Your task to perform on an android device: Go to eBay Image 0: 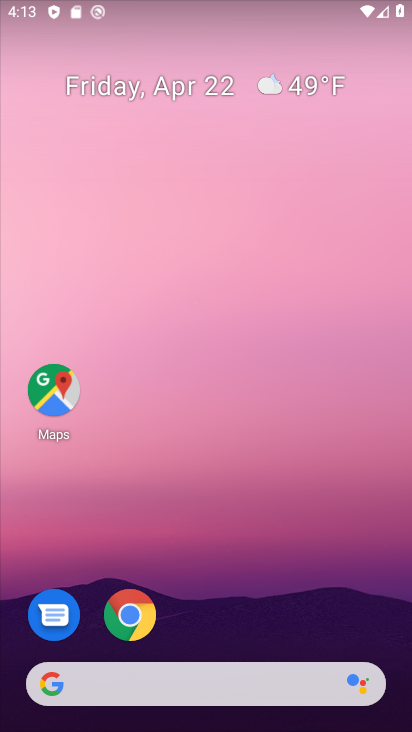
Step 0: click (221, 685)
Your task to perform on an android device: Go to eBay Image 1: 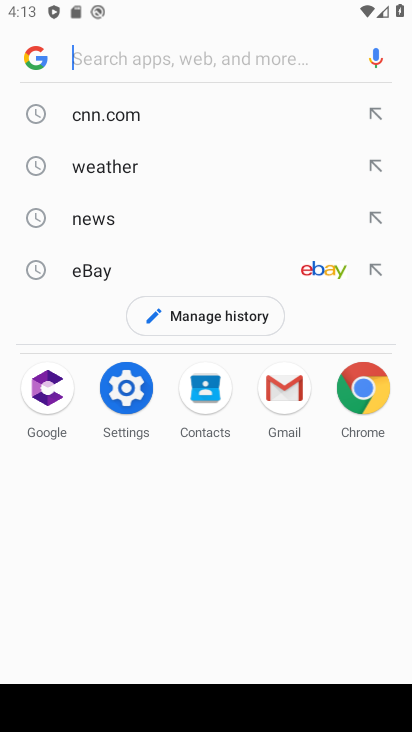
Step 1: click (102, 269)
Your task to perform on an android device: Go to eBay Image 2: 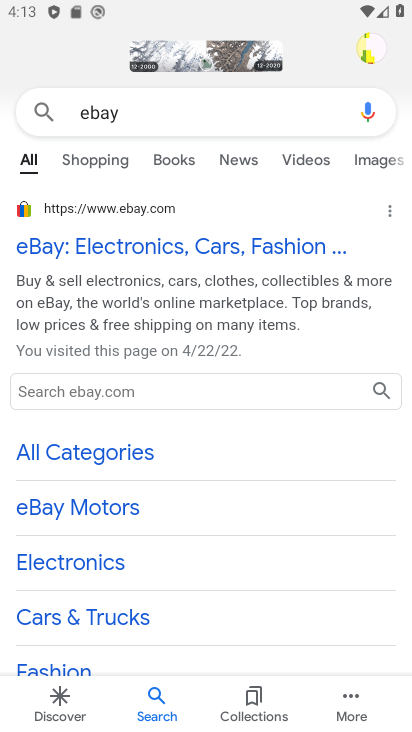
Step 2: click (130, 248)
Your task to perform on an android device: Go to eBay Image 3: 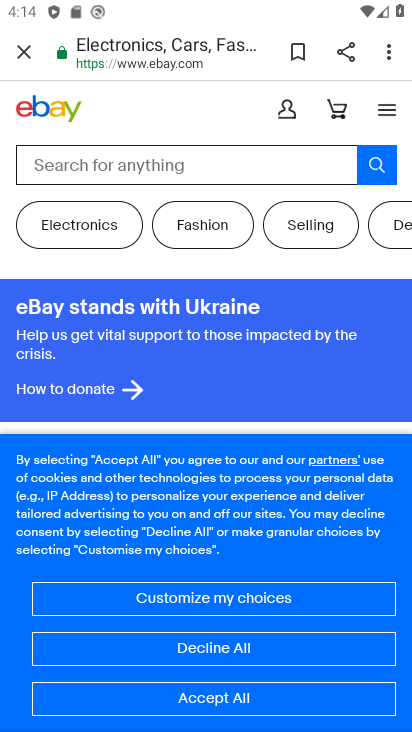
Step 3: task complete